Your task to perform on an android device: turn on the 24-hour format for clock Image 0: 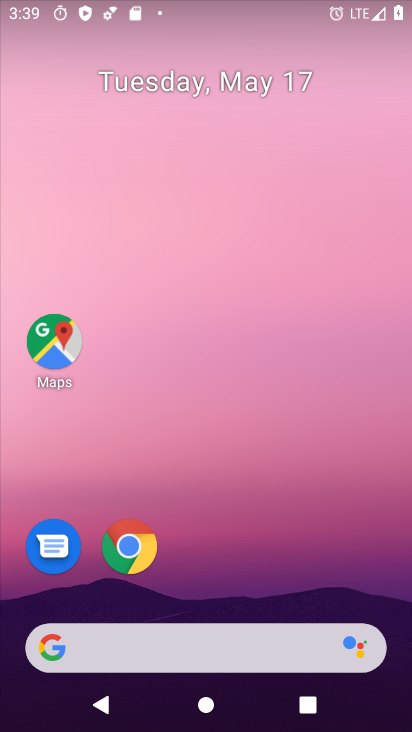
Step 0: press home button
Your task to perform on an android device: turn on the 24-hour format for clock Image 1: 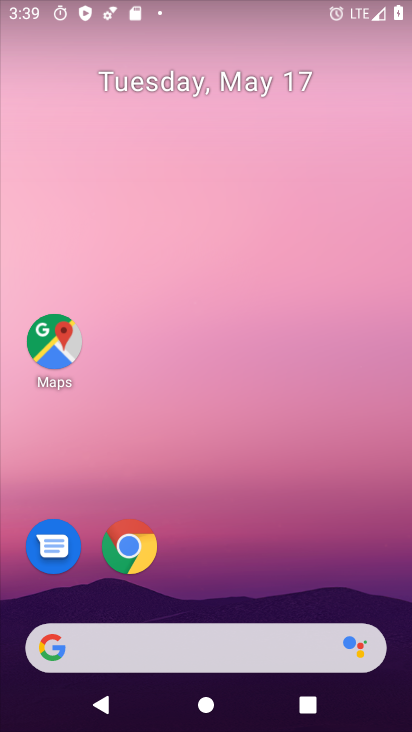
Step 1: drag from (252, 569) to (101, 75)
Your task to perform on an android device: turn on the 24-hour format for clock Image 2: 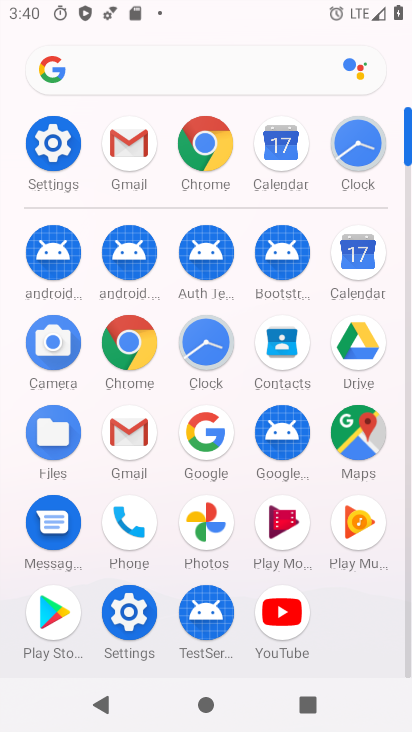
Step 2: click (208, 321)
Your task to perform on an android device: turn on the 24-hour format for clock Image 3: 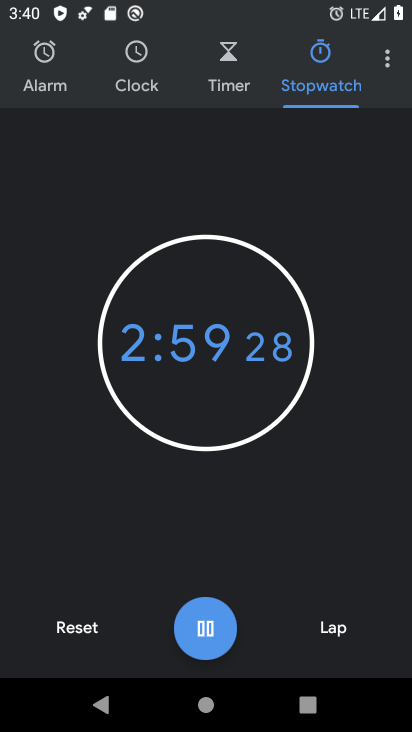
Step 3: click (390, 60)
Your task to perform on an android device: turn on the 24-hour format for clock Image 4: 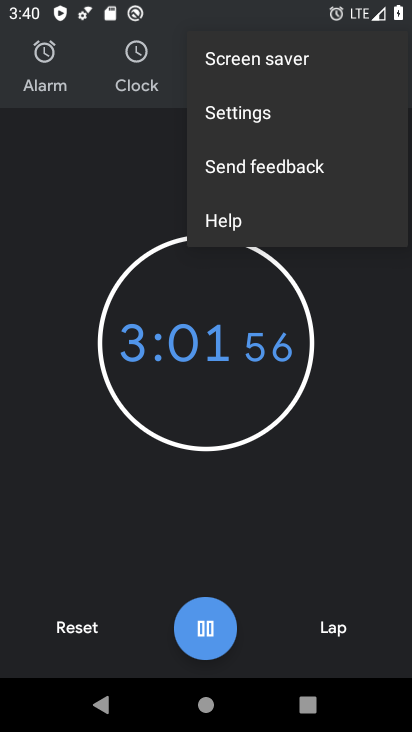
Step 4: click (273, 127)
Your task to perform on an android device: turn on the 24-hour format for clock Image 5: 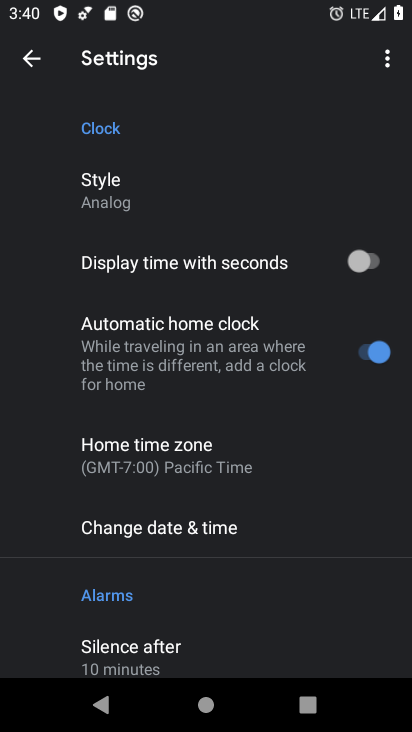
Step 5: drag from (158, 575) to (158, 509)
Your task to perform on an android device: turn on the 24-hour format for clock Image 6: 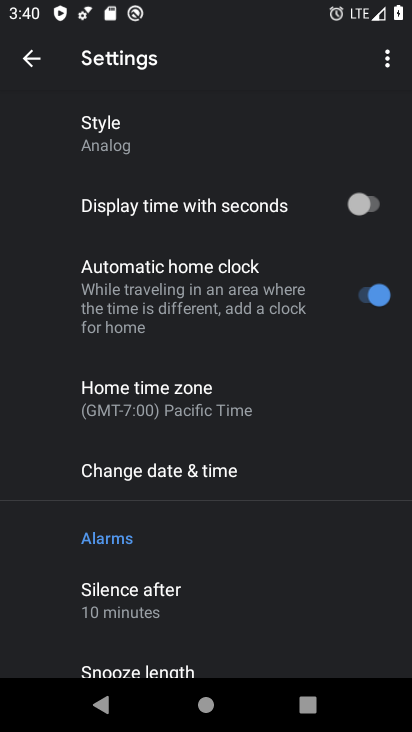
Step 6: click (180, 467)
Your task to perform on an android device: turn on the 24-hour format for clock Image 7: 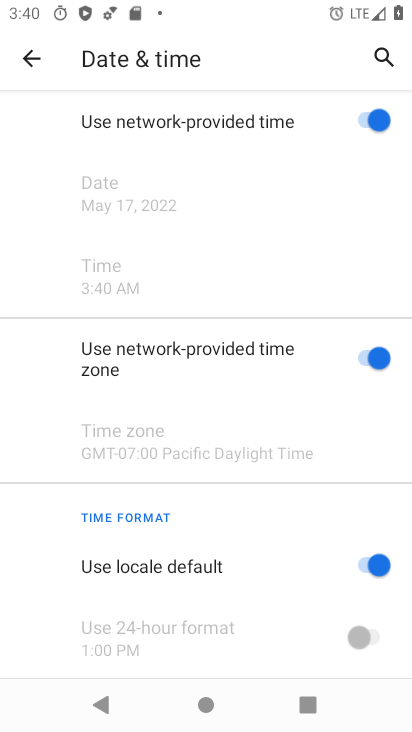
Step 7: click (371, 563)
Your task to perform on an android device: turn on the 24-hour format for clock Image 8: 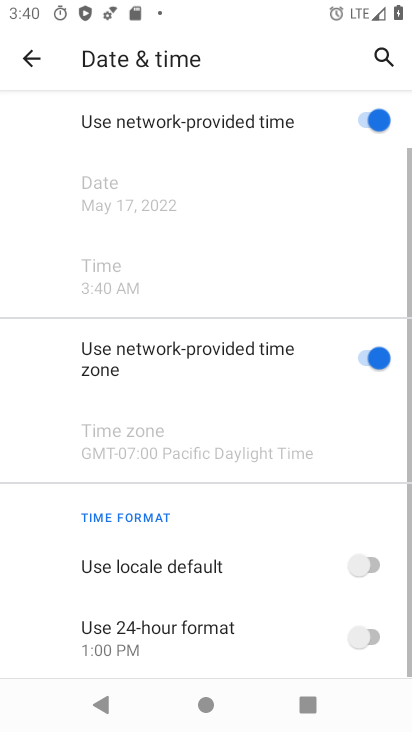
Step 8: click (365, 640)
Your task to perform on an android device: turn on the 24-hour format for clock Image 9: 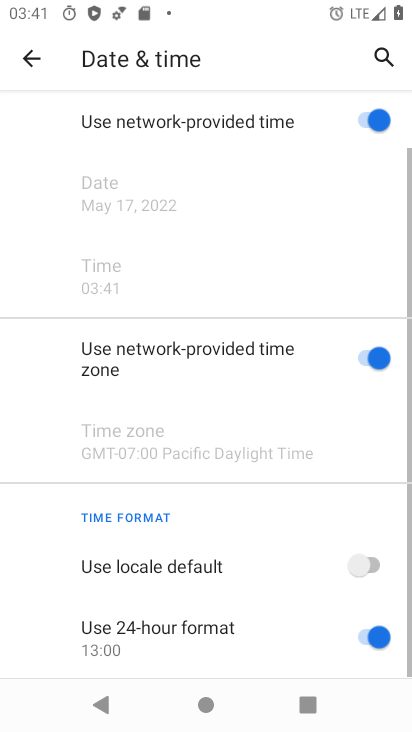
Step 9: task complete